Your task to perform on an android device: read, delete, or share a saved page in the chrome app Image 0: 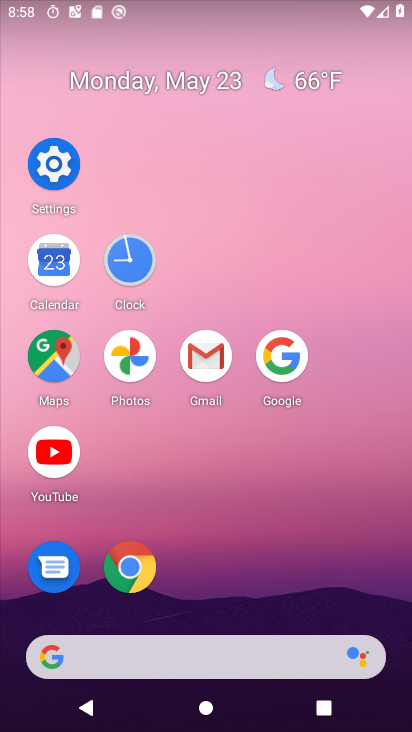
Step 0: click (132, 562)
Your task to perform on an android device: read, delete, or share a saved page in the chrome app Image 1: 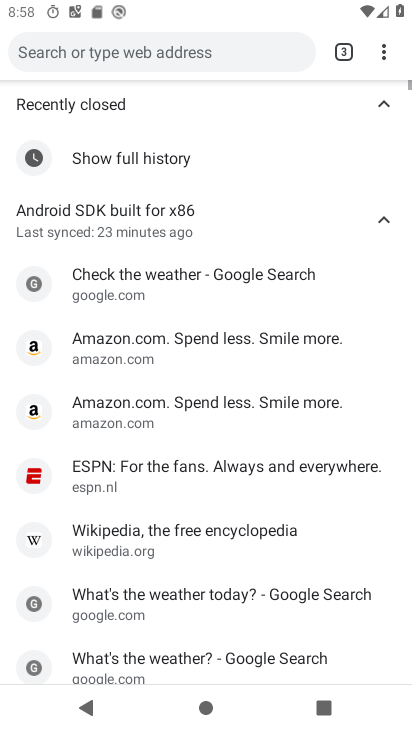
Step 1: click (384, 51)
Your task to perform on an android device: read, delete, or share a saved page in the chrome app Image 2: 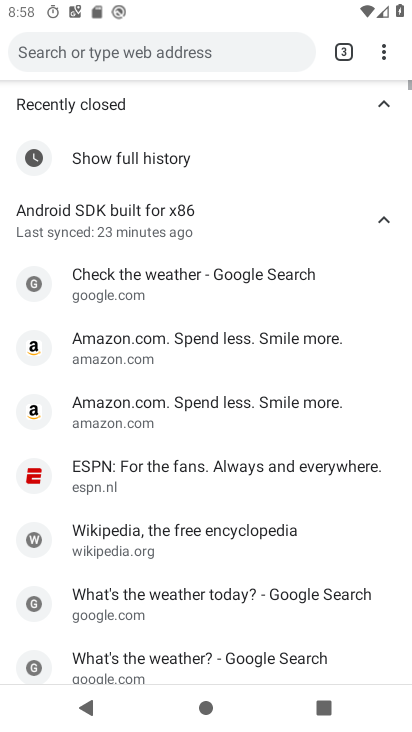
Step 2: click (381, 52)
Your task to perform on an android device: read, delete, or share a saved page in the chrome app Image 3: 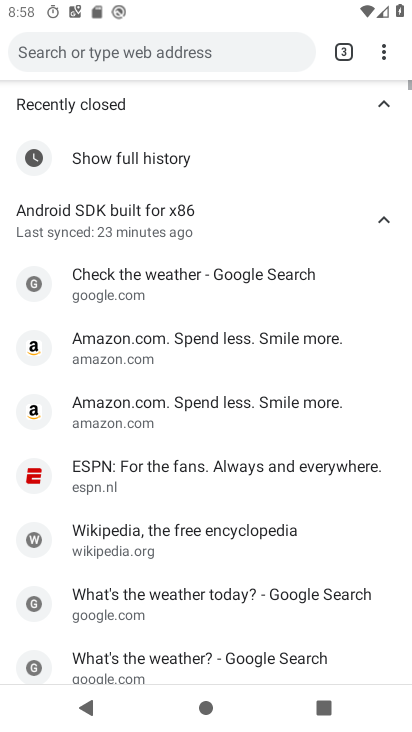
Step 3: click (381, 54)
Your task to perform on an android device: read, delete, or share a saved page in the chrome app Image 4: 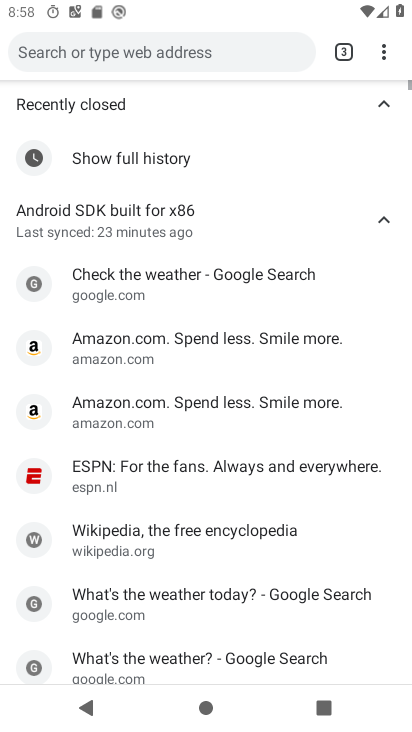
Step 4: click (381, 54)
Your task to perform on an android device: read, delete, or share a saved page in the chrome app Image 5: 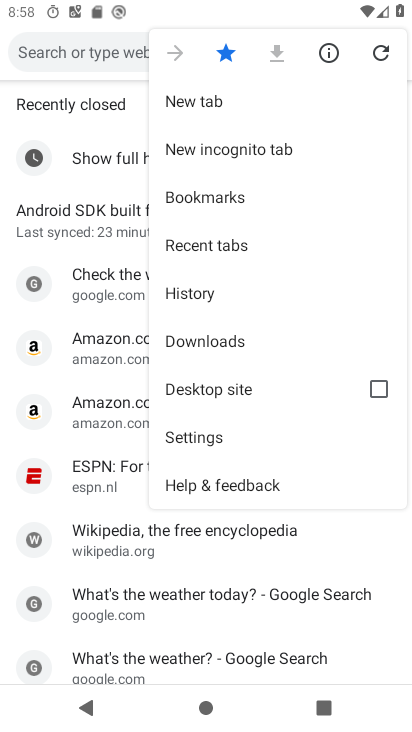
Step 5: click (235, 342)
Your task to perform on an android device: read, delete, or share a saved page in the chrome app Image 6: 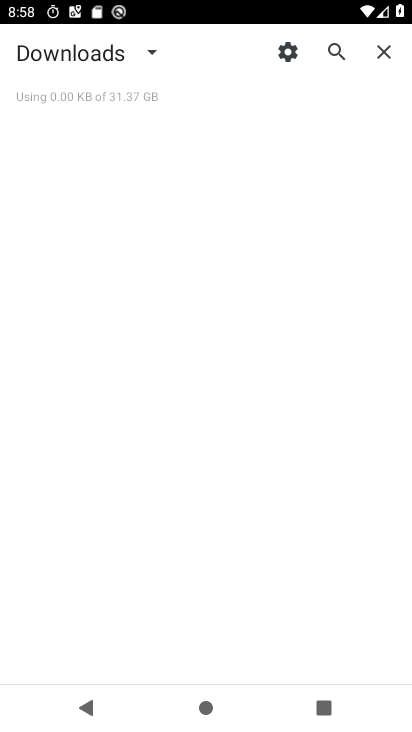
Step 6: task complete